Your task to perform on an android device: set the timer Image 0: 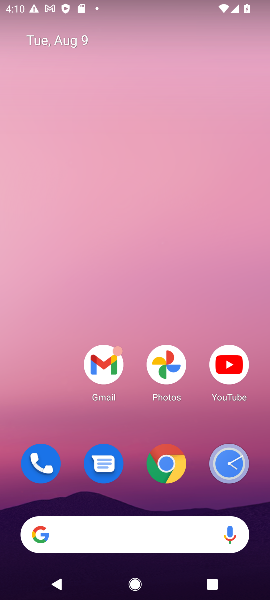
Step 0: click (230, 466)
Your task to perform on an android device: set the timer Image 1: 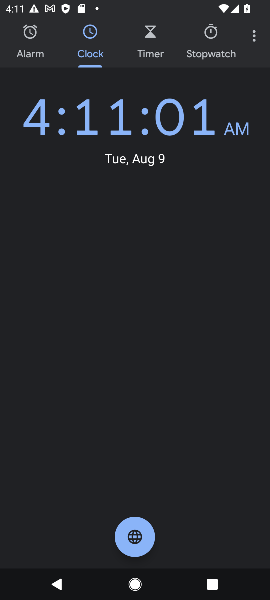
Step 1: click (143, 50)
Your task to perform on an android device: set the timer Image 2: 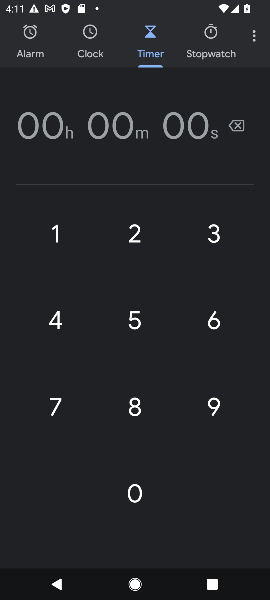
Step 2: click (52, 233)
Your task to perform on an android device: set the timer Image 3: 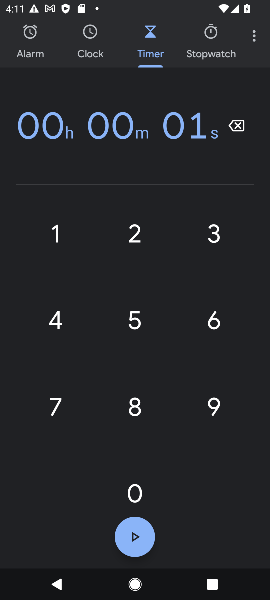
Step 3: click (124, 500)
Your task to perform on an android device: set the timer Image 4: 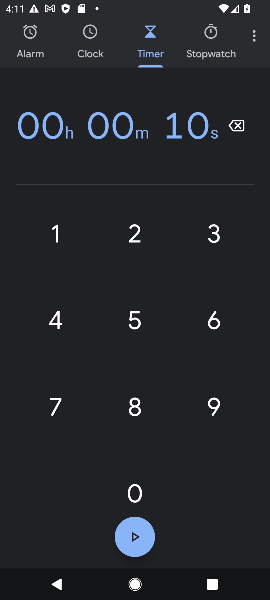
Step 4: click (145, 494)
Your task to perform on an android device: set the timer Image 5: 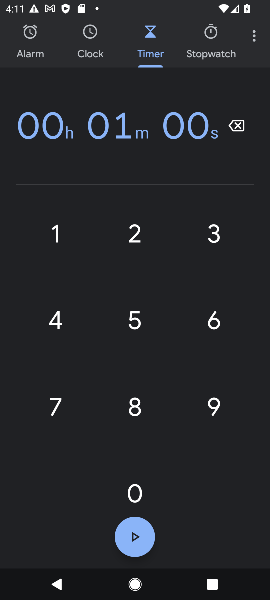
Step 5: click (145, 495)
Your task to perform on an android device: set the timer Image 6: 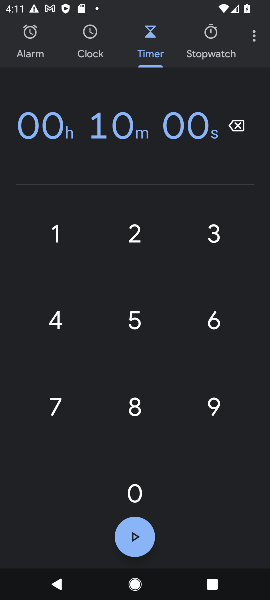
Step 6: click (132, 540)
Your task to perform on an android device: set the timer Image 7: 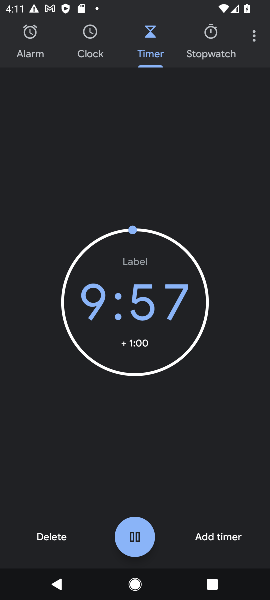
Step 7: task complete